Your task to perform on an android device: turn on priority inbox in the gmail app Image 0: 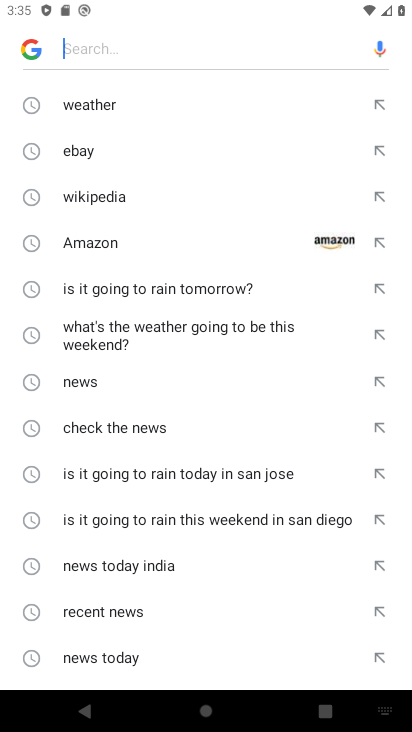
Step 0: press home button
Your task to perform on an android device: turn on priority inbox in the gmail app Image 1: 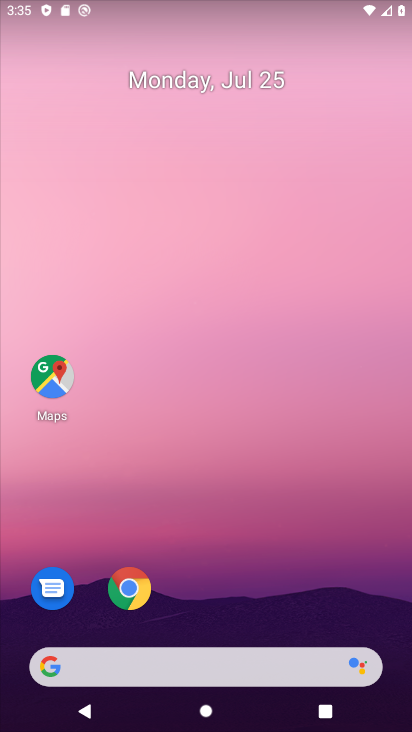
Step 1: drag from (237, 674) to (247, 24)
Your task to perform on an android device: turn on priority inbox in the gmail app Image 2: 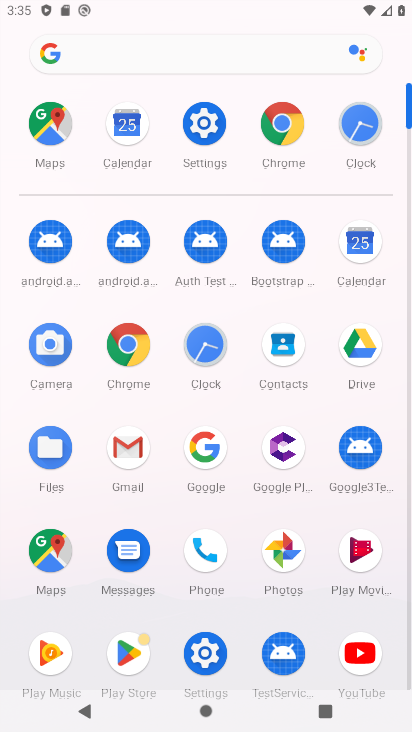
Step 2: click (122, 437)
Your task to perform on an android device: turn on priority inbox in the gmail app Image 3: 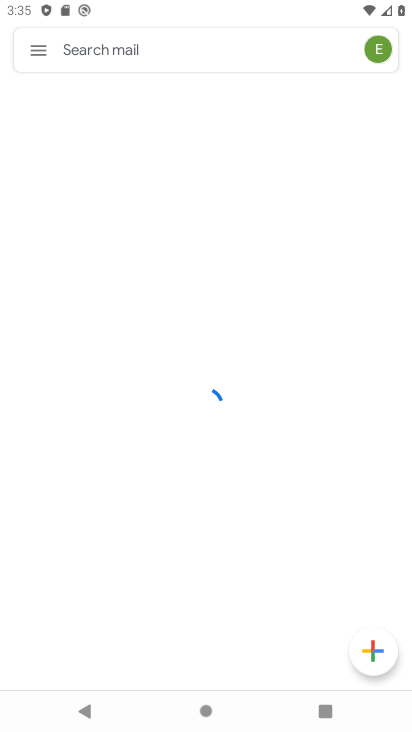
Step 3: click (33, 43)
Your task to perform on an android device: turn on priority inbox in the gmail app Image 4: 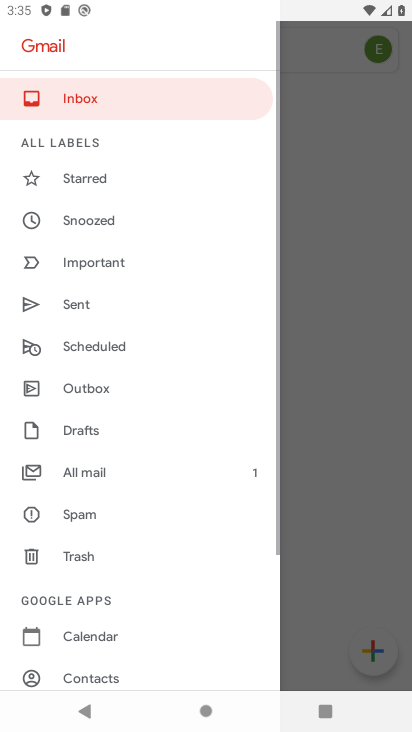
Step 4: drag from (71, 660) to (77, 376)
Your task to perform on an android device: turn on priority inbox in the gmail app Image 5: 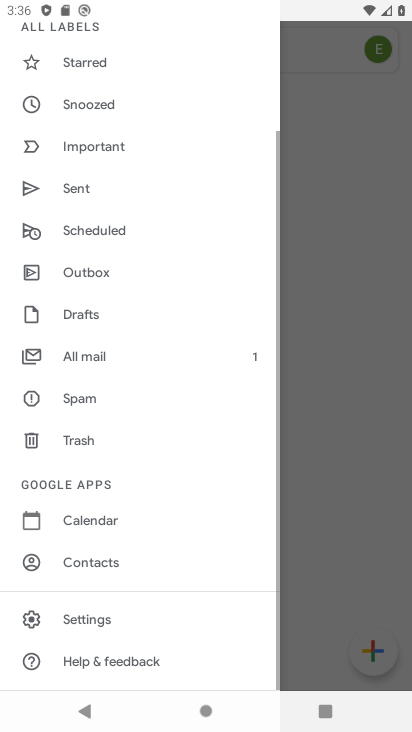
Step 5: click (87, 616)
Your task to perform on an android device: turn on priority inbox in the gmail app Image 6: 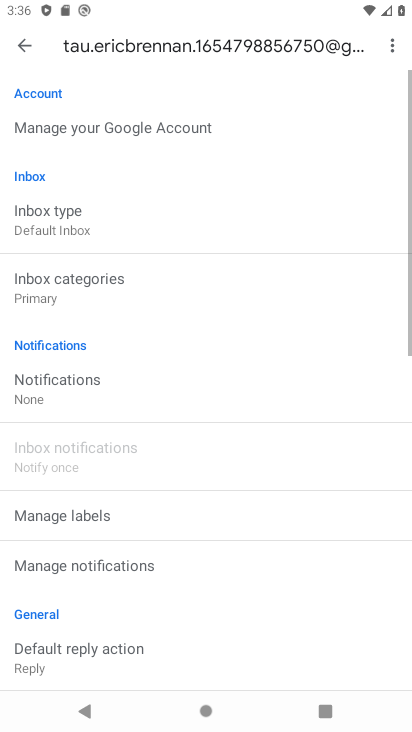
Step 6: drag from (76, 656) to (98, 301)
Your task to perform on an android device: turn on priority inbox in the gmail app Image 7: 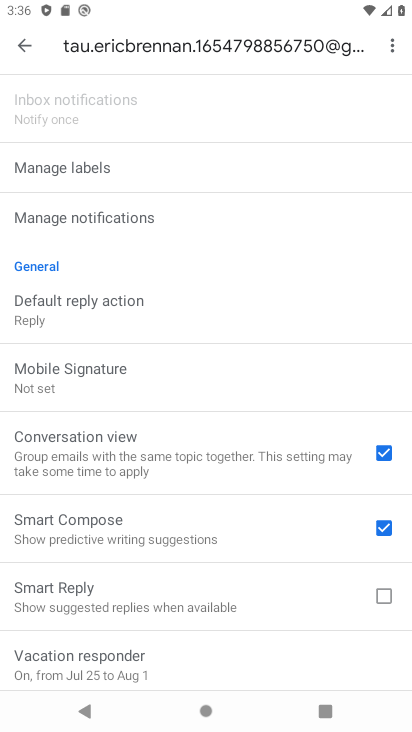
Step 7: drag from (41, 638) to (78, 240)
Your task to perform on an android device: turn on priority inbox in the gmail app Image 8: 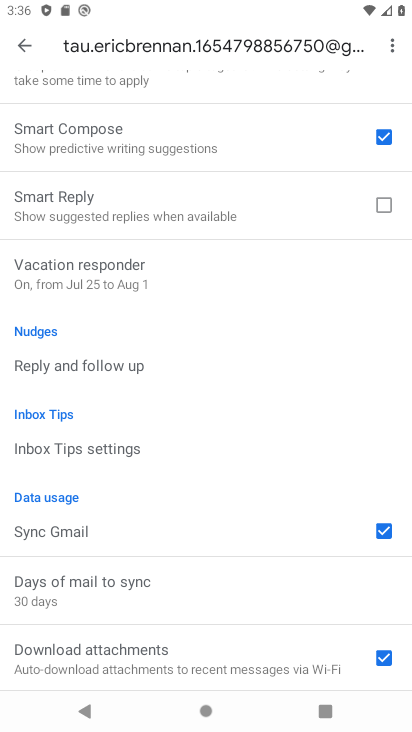
Step 8: drag from (97, 656) to (132, 214)
Your task to perform on an android device: turn on priority inbox in the gmail app Image 9: 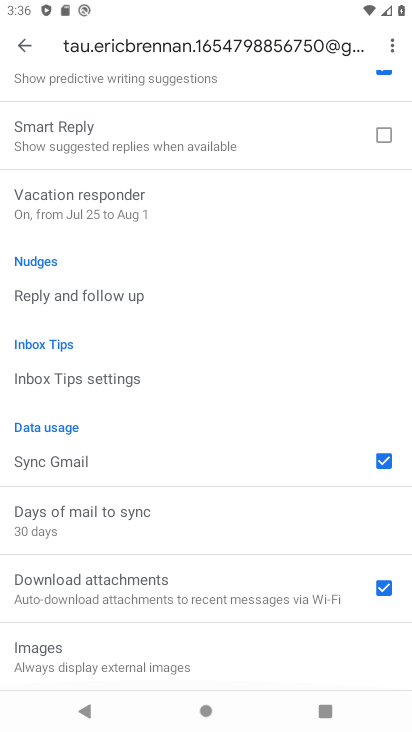
Step 9: drag from (199, 155) to (173, 673)
Your task to perform on an android device: turn on priority inbox in the gmail app Image 10: 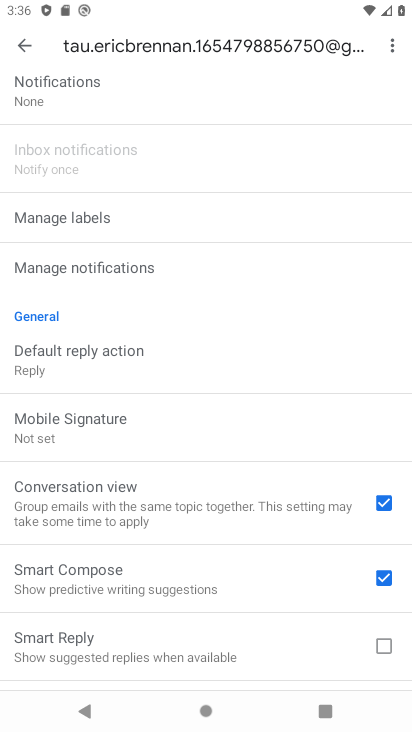
Step 10: drag from (170, 110) to (157, 635)
Your task to perform on an android device: turn on priority inbox in the gmail app Image 11: 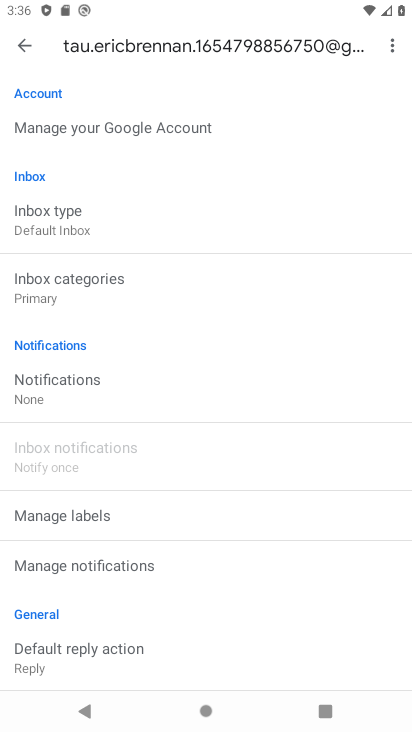
Step 11: drag from (217, 189) to (185, 589)
Your task to perform on an android device: turn on priority inbox in the gmail app Image 12: 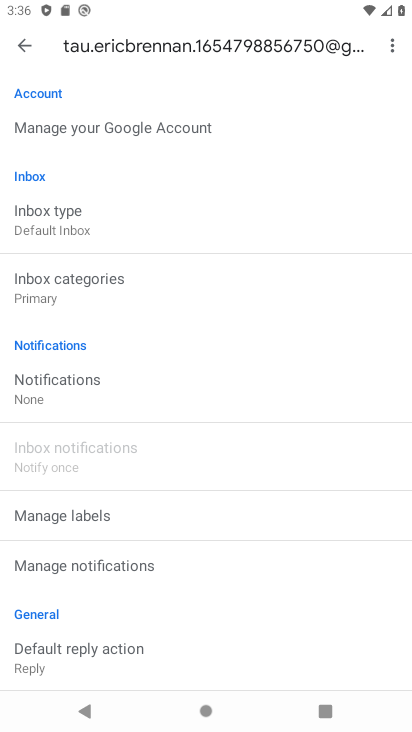
Step 12: click (45, 288)
Your task to perform on an android device: turn on priority inbox in the gmail app Image 13: 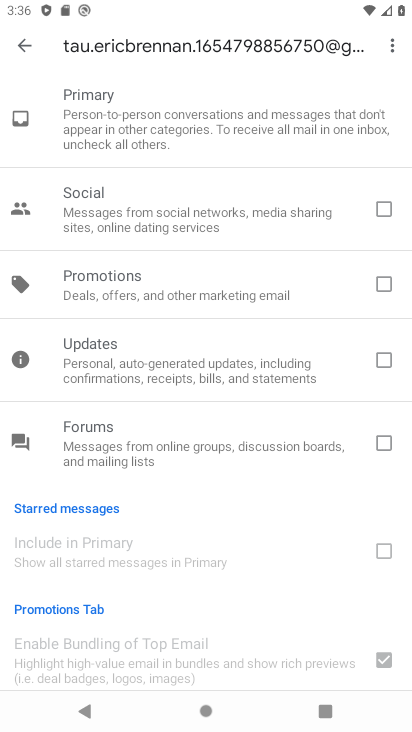
Step 13: click (20, 37)
Your task to perform on an android device: turn on priority inbox in the gmail app Image 14: 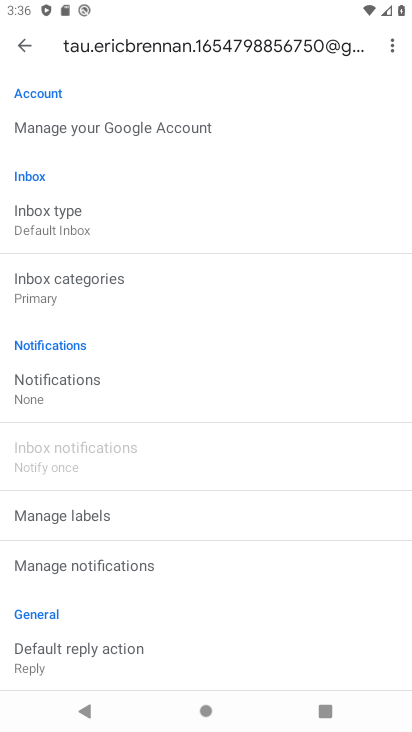
Step 14: drag from (116, 245) to (114, 573)
Your task to perform on an android device: turn on priority inbox in the gmail app Image 15: 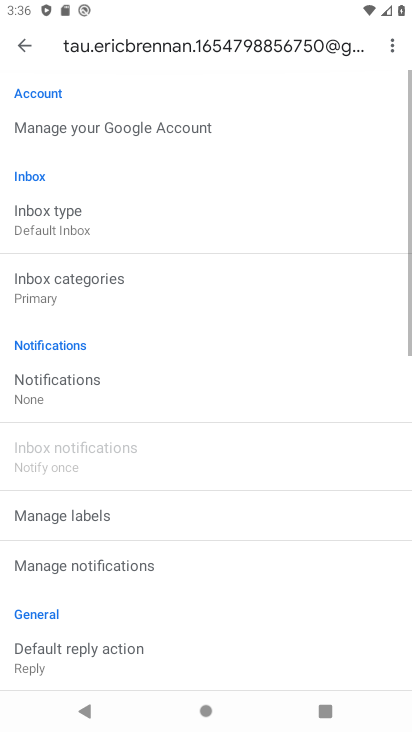
Step 15: click (72, 230)
Your task to perform on an android device: turn on priority inbox in the gmail app Image 16: 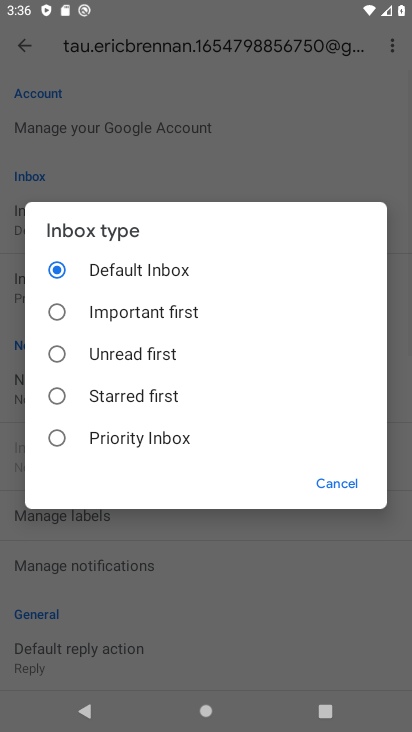
Step 16: click (56, 433)
Your task to perform on an android device: turn on priority inbox in the gmail app Image 17: 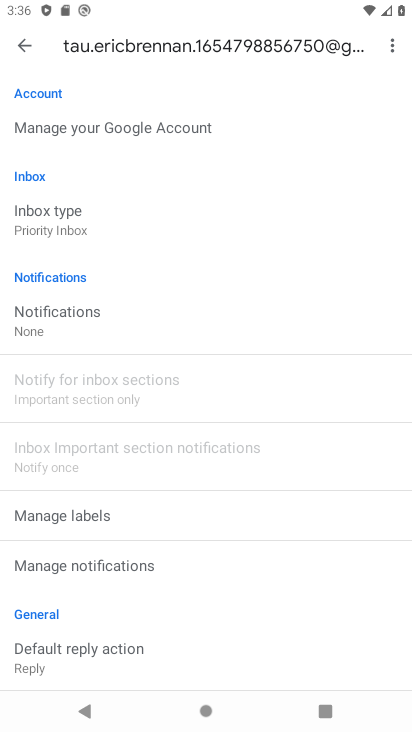
Step 17: task complete